Your task to perform on an android device: turn on data saver in the chrome app Image 0: 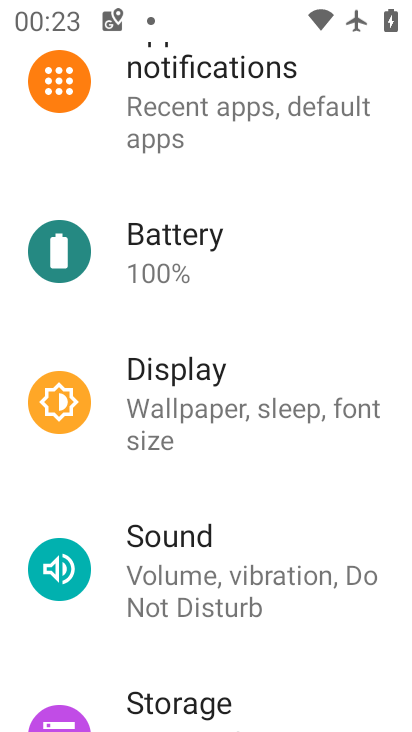
Step 0: press home button
Your task to perform on an android device: turn on data saver in the chrome app Image 1: 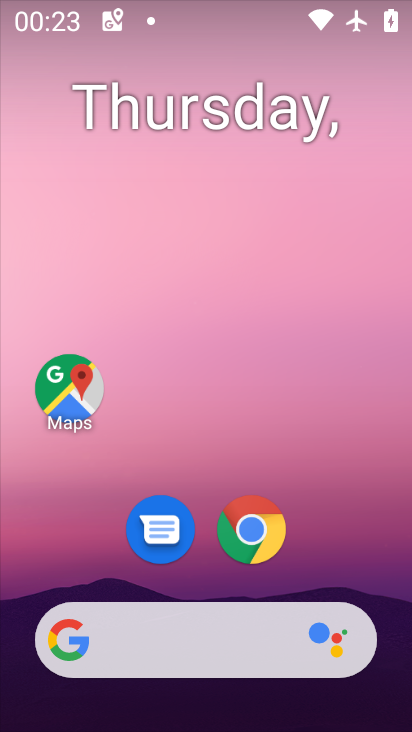
Step 1: click (251, 534)
Your task to perform on an android device: turn on data saver in the chrome app Image 2: 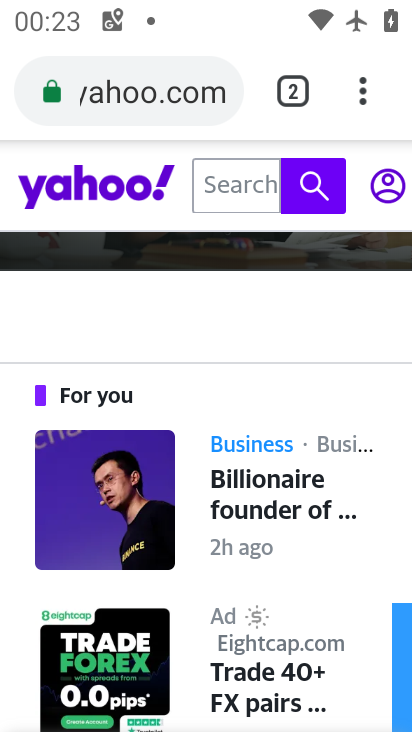
Step 2: click (362, 102)
Your task to perform on an android device: turn on data saver in the chrome app Image 3: 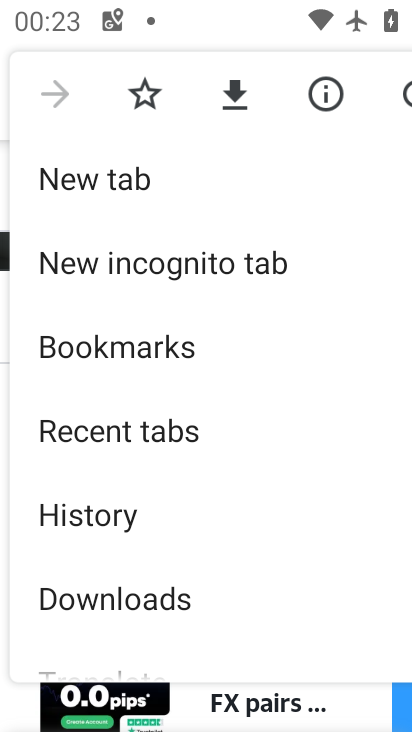
Step 3: drag from (243, 563) to (268, 238)
Your task to perform on an android device: turn on data saver in the chrome app Image 4: 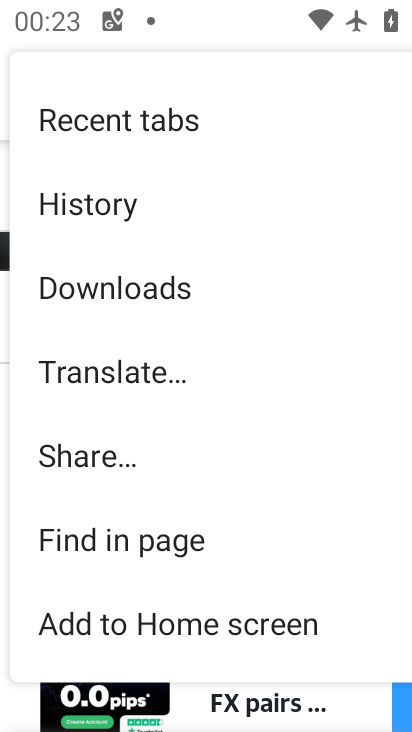
Step 4: drag from (319, 593) to (262, 220)
Your task to perform on an android device: turn on data saver in the chrome app Image 5: 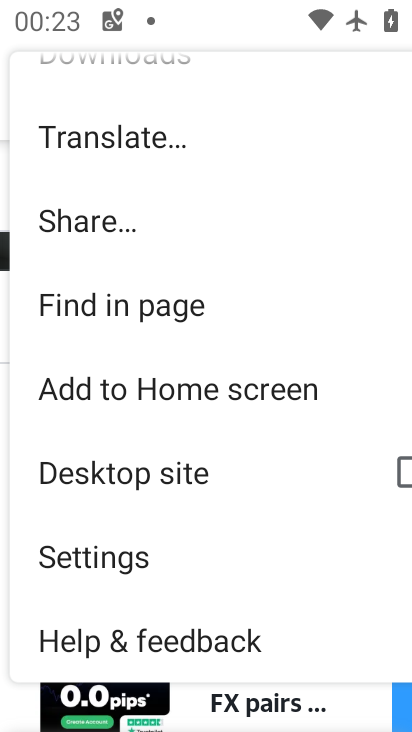
Step 5: click (95, 557)
Your task to perform on an android device: turn on data saver in the chrome app Image 6: 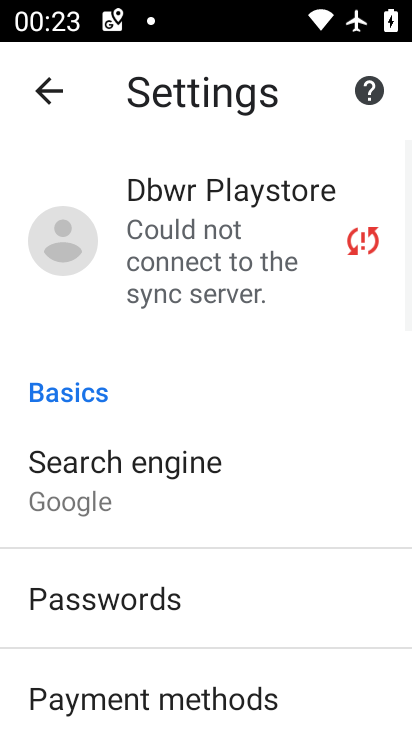
Step 6: drag from (307, 674) to (265, 318)
Your task to perform on an android device: turn on data saver in the chrome app Image 7: 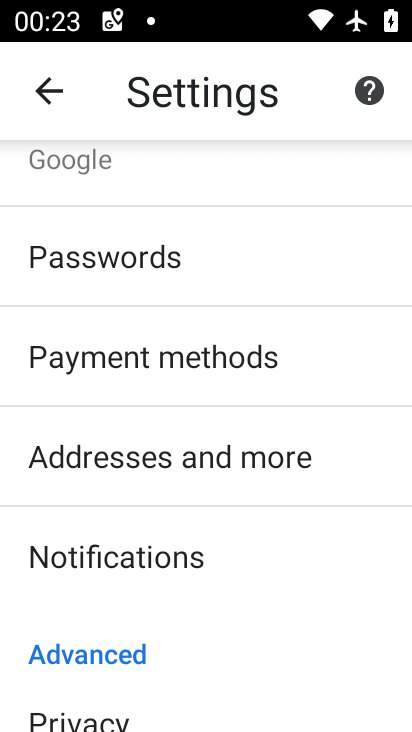
Step 7: drag from (274, 666) to (331, 248)
Your task to perform on an android device: turn on data saver in the chrome app Image 8: 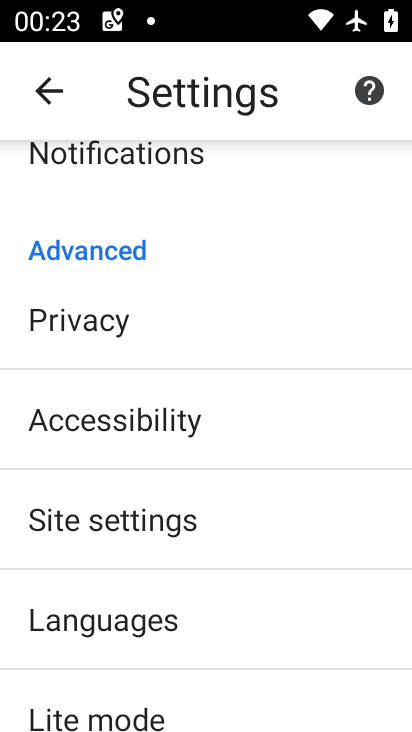
Step 8: drag from (223, 692) to (231, 300)
Your task to perform on an android device: turn on data saver in the chrome app Image 9: 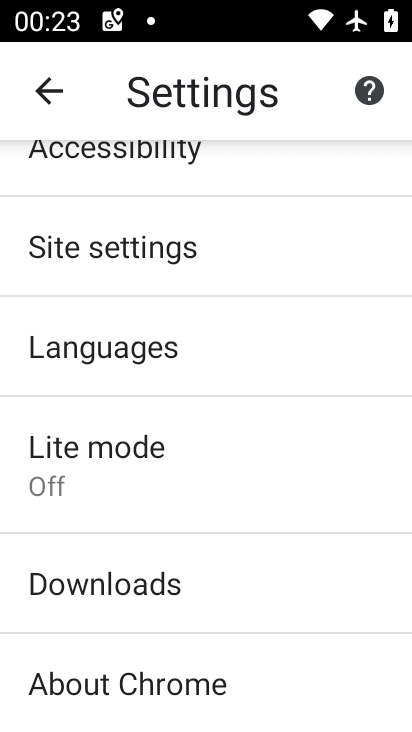
Step 9: click (79, 462)
Your task to perform on an android device: turn on data saver in the chrome app Image 10: 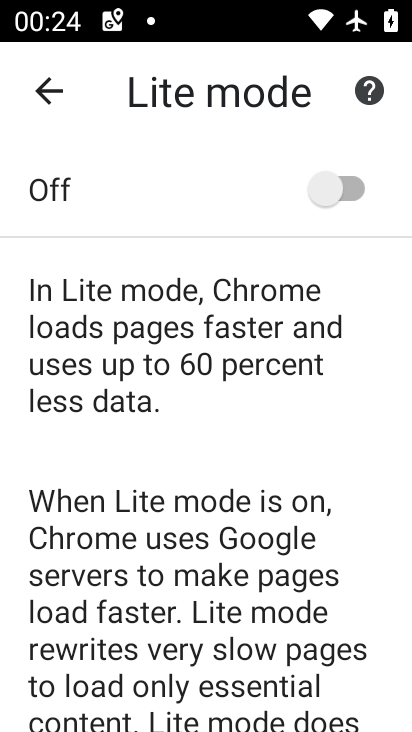
Step 10: click (356, 188)
Your task to perform on an android device: turn on data saver in the chrome app Image 11: 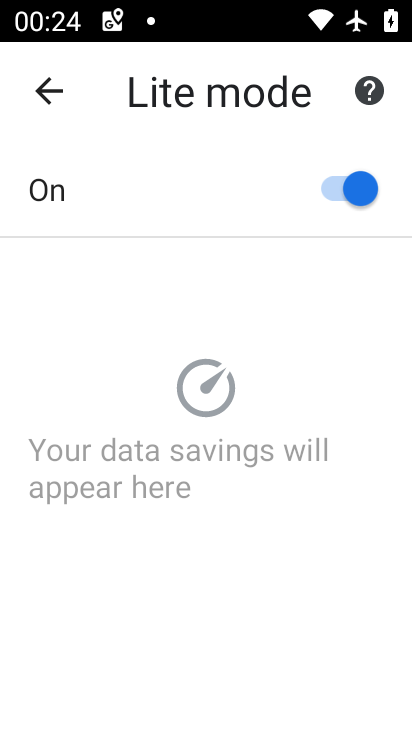
Step 11: task complete